Your task to perform on an android device: Open the Play Movies app and select the watchlist tab. Image 0: 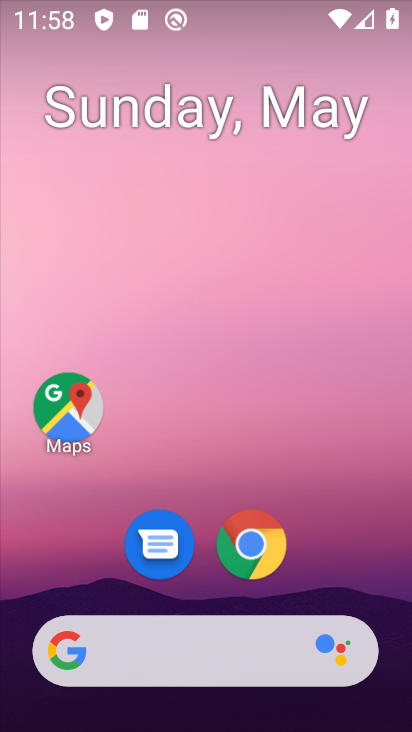
Step 0: drag from (343, 613) to (273, 12)
Your task to perform on an android device: Open the Play Movies app and select the watchlist tab. Image 1: 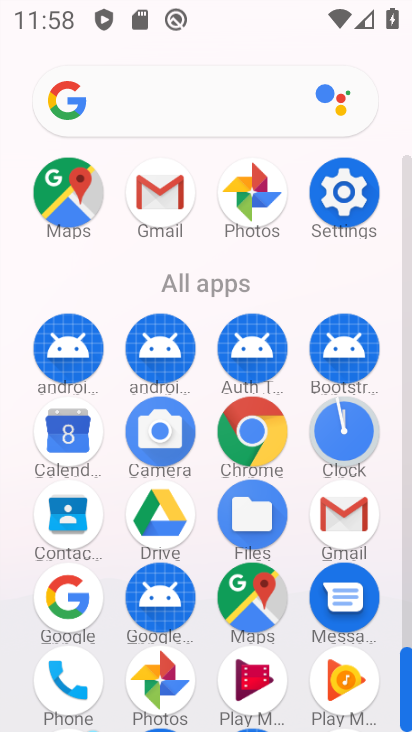
Step 1: drag from (299, 669) to (277, 429)
Your task to perform on an android device: Open the Play Movies app and select the watchlist tab. Image 2: 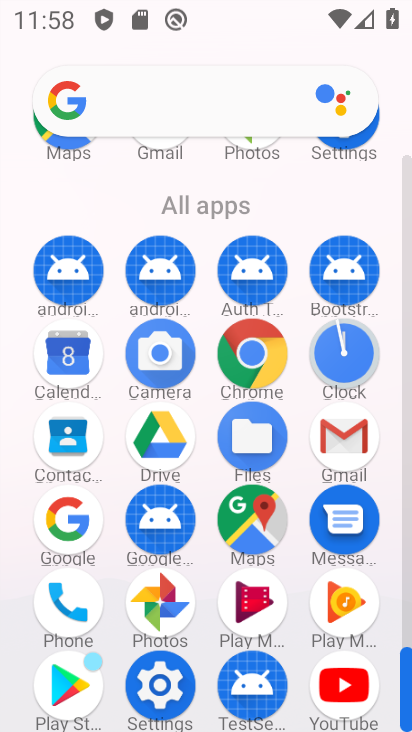
Step 2: click (257, 601)
Your task to perform on an android device: Open the Play Movies app and select the watchlist tab. Image 3: 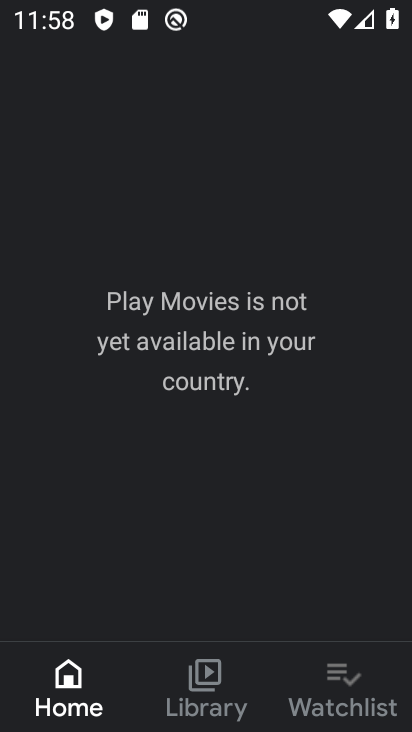
Step 3: click (357, 673)
Your task to perform on an android device: Open the Play Movies app and select the watchlist tab. Image 4: 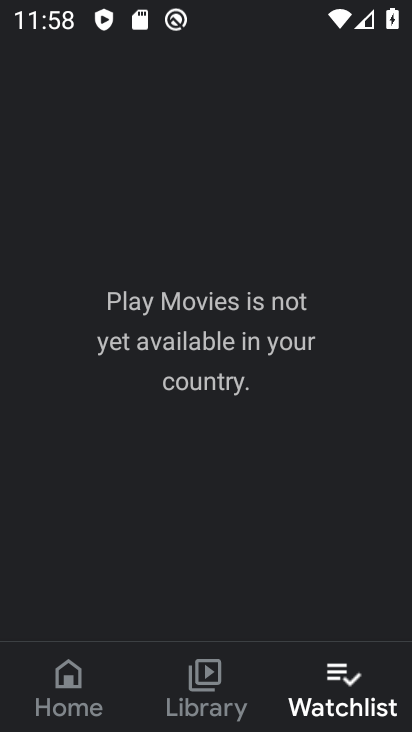
Step 4: task complete